Your task to perform on an android device: Open sound settings Image 0: 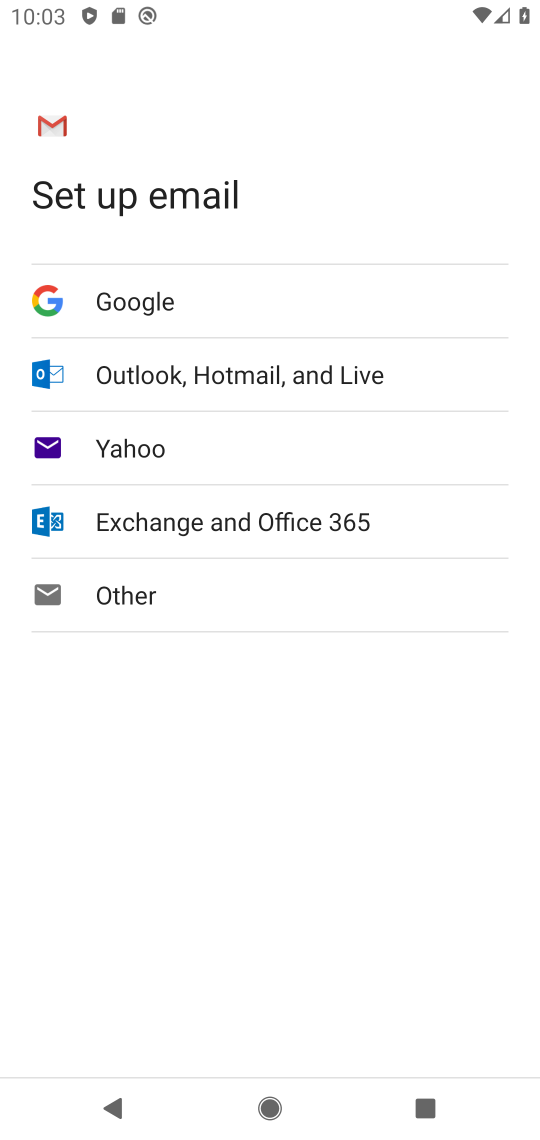
Step 0: press home button
Your task to perform on an android device: Open sound settings Image 1: 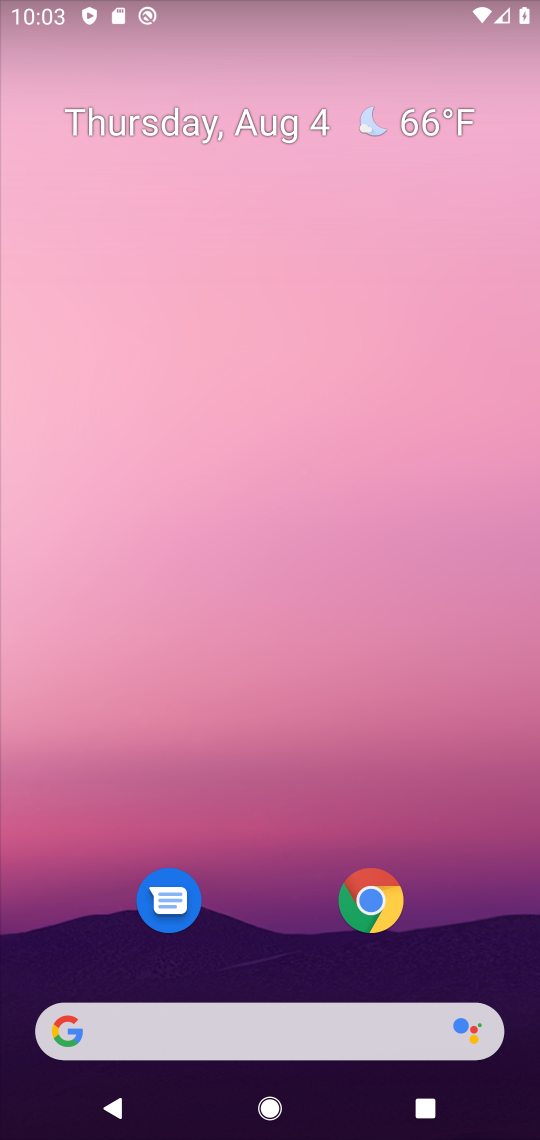
Step 1: drag from (513, 919) to (375, 158)
Your task to perform on an android device: Open sound settings Image 2: 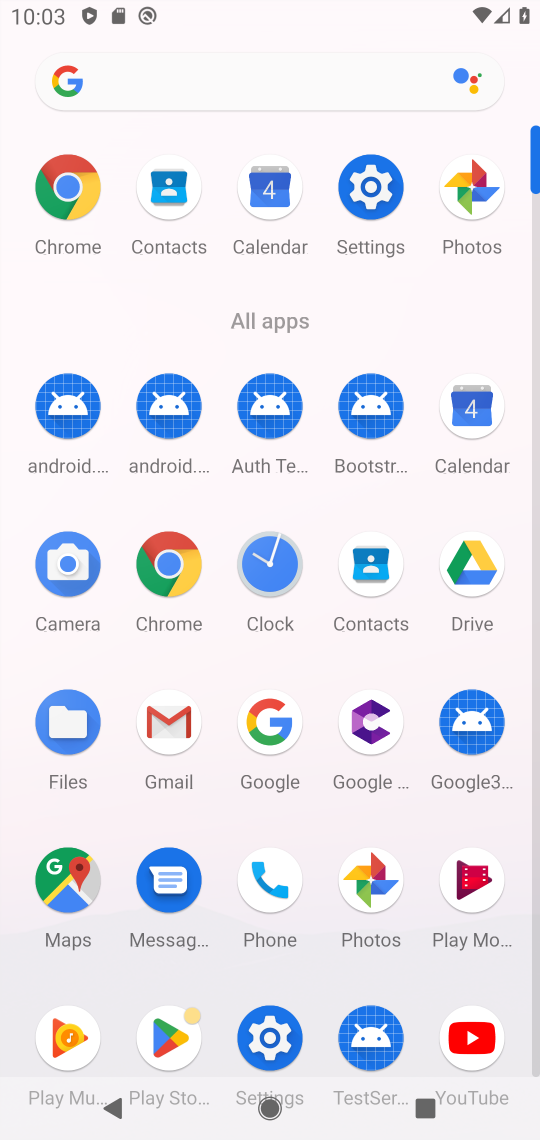
Step 2: drag from (433, 496) to (429, 272)
Your task to perform on an android device: Open sound settings Image 3: 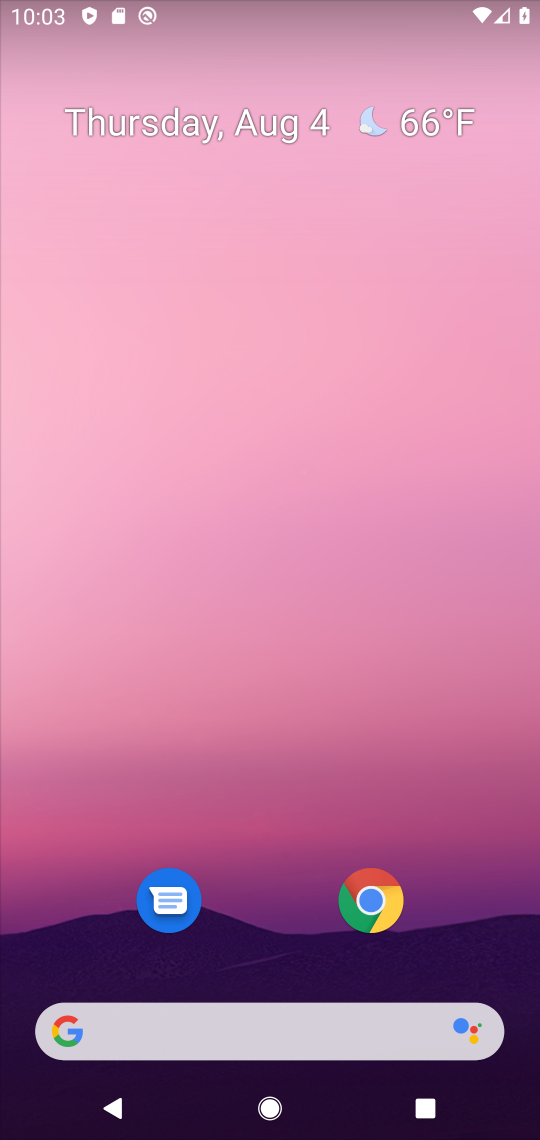
Step 3: drag from (275, 871) to (253, 232)
Your task to perform on an android device: Open sound settings Image 4: 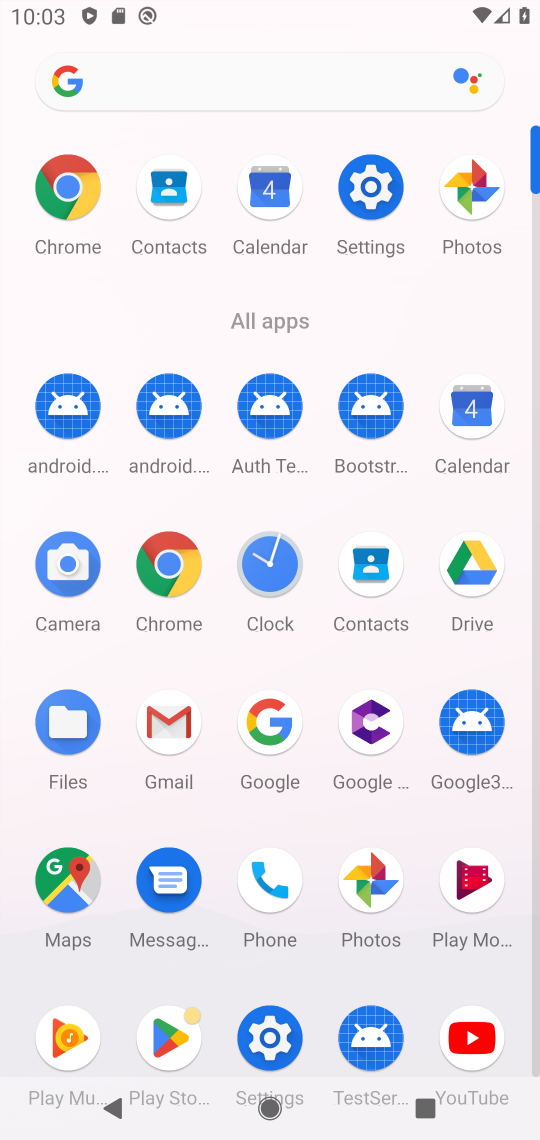
Step 4: drag from (276, 705) to (274, 463)
Your task to perform on an android device: Open sound settings Image 5: 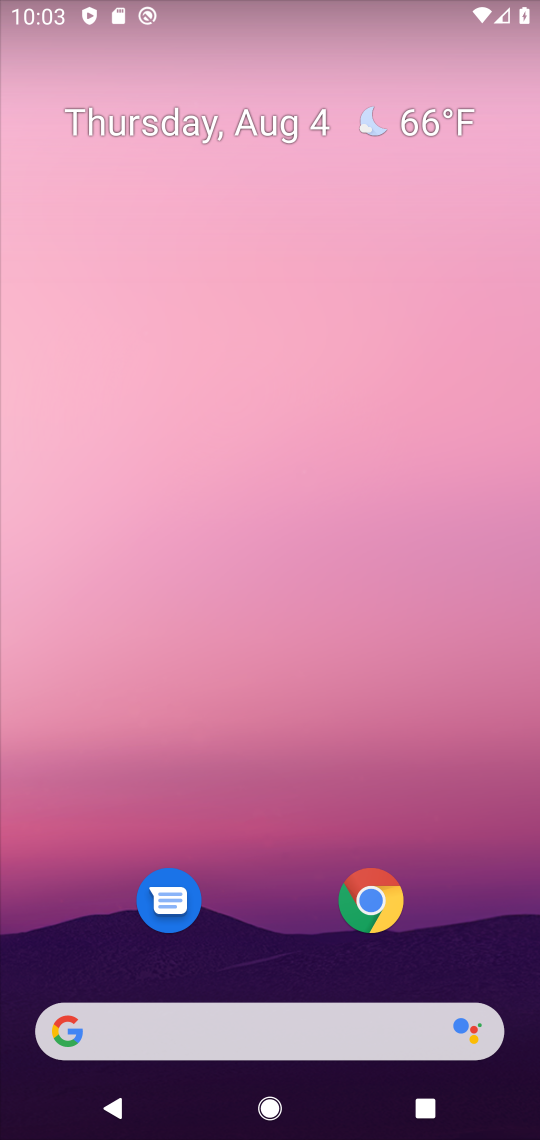
Step 5: drag from (299, 972) to (276, 151)
Your task to perform on an android device: Open sound settings Image 6: 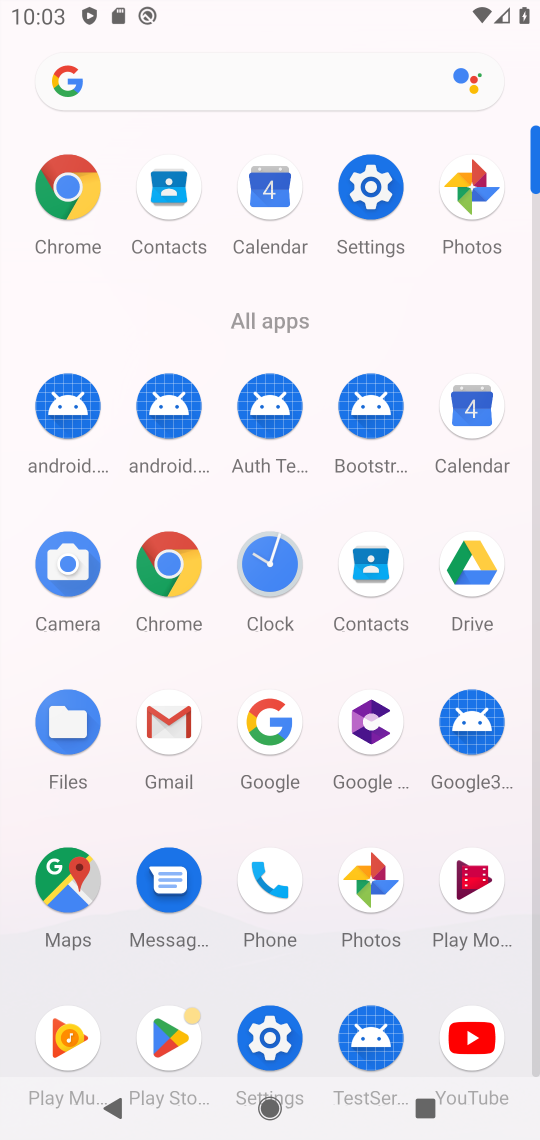
Step 6: click (358, 191)
Your task to perform on an android device: Open sound settings Image 7: 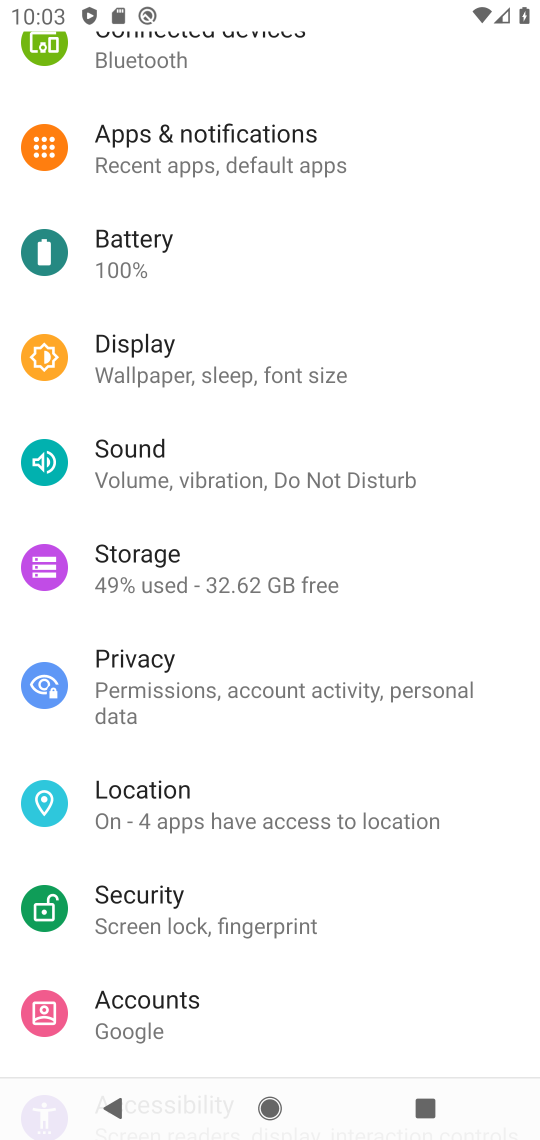
Step 7: click (223, 455)
Your task to perform on an android device: Open sound settings Image 8: 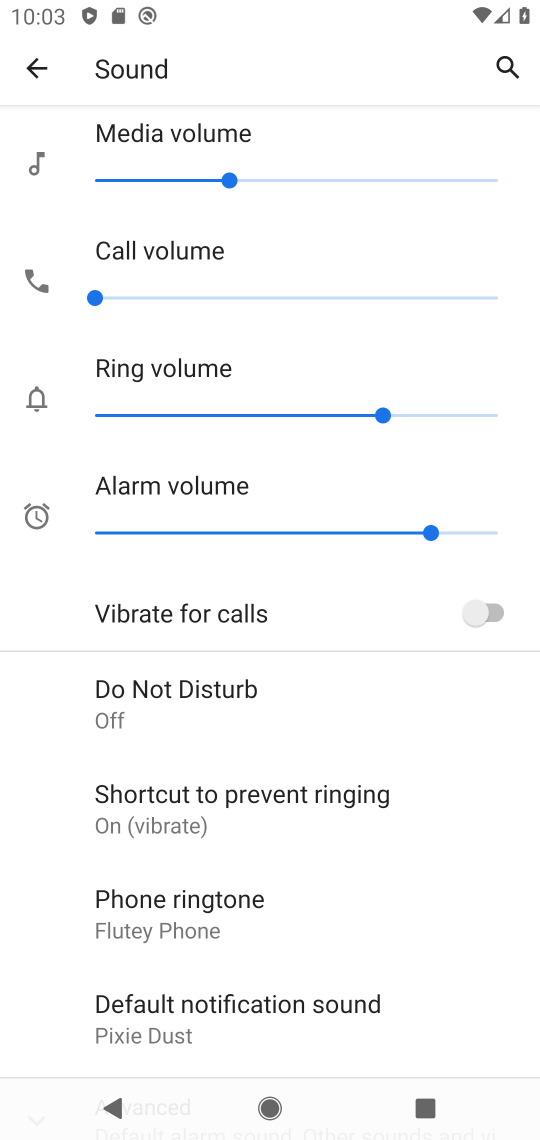
Step 8: task complete